Your task to perform on an android device: allow notifications from all sites in the chrome app Image 0: 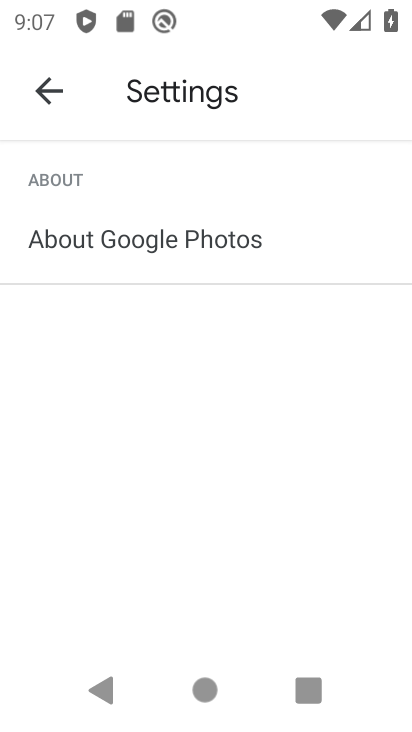
Step 0: press home button
Your task to perform on an android device: allow notifications from all sites in the chrome app Image 1: 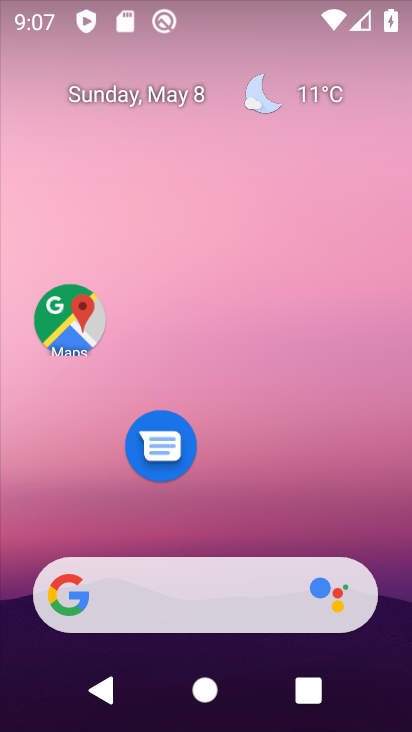
Step 1: drag from (281, 525) to (307, 136)
Your task to perform on an android device: allow notifications from all sites in the chrome app Image 2: 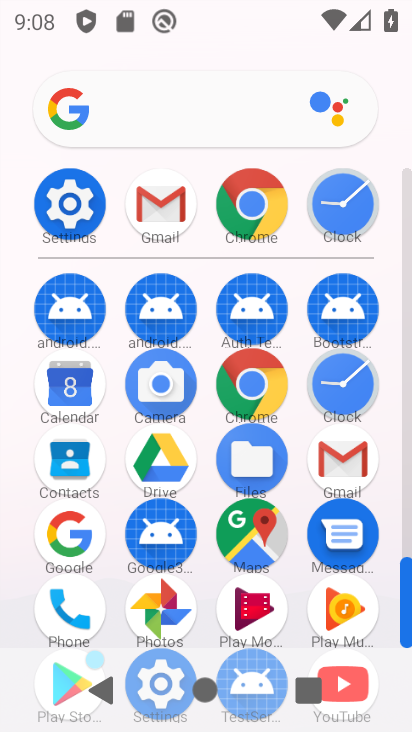
Step 2: click (264, 403)
Your task to perform on an android device: allow notifications from all sites in the chrome app Image 3: 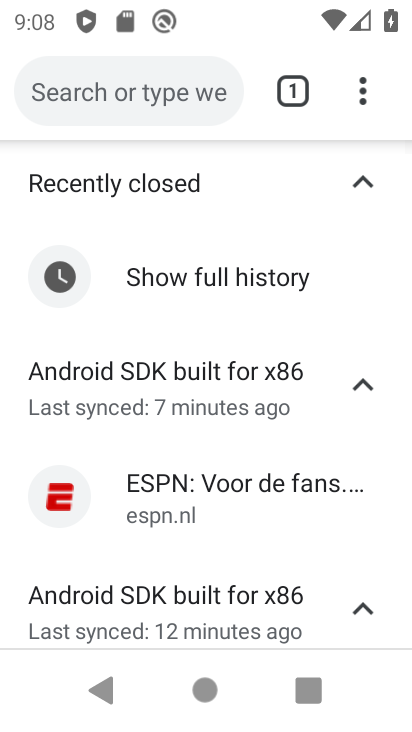
Step 3: drag from (353, 85) to (156, 472)
Your task to perform on an android device: allow notifications from all sites in the chrome app Image 4: 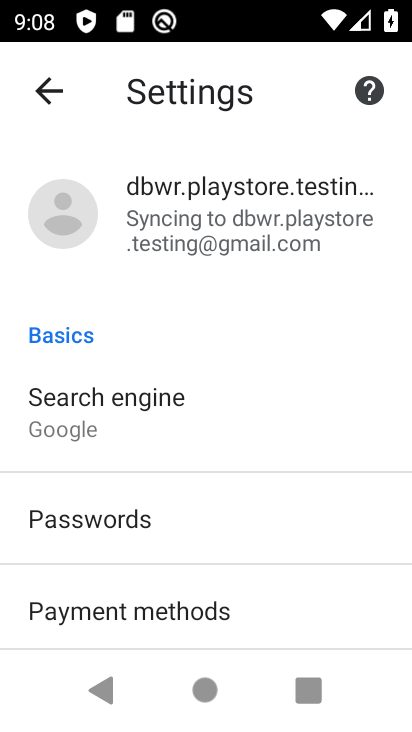
Step 4: drag from (202, 613) to (207, 161)
Your task to perform on an android device: allow notifications from all sites in the chrome app Image 5: 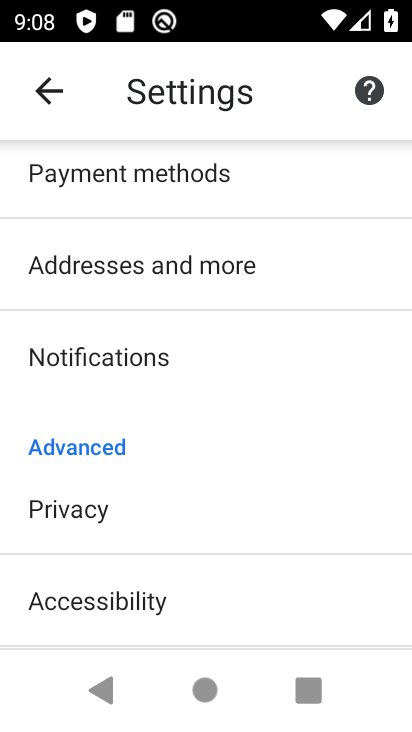
Step 5: drag from (229, 598) to (240, 261)
Your task to perform on an android device: allow notifications from all sites in the chrome app Image 6: 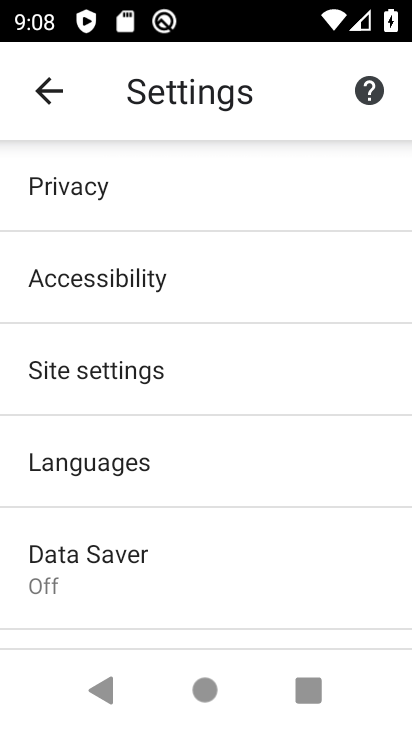
Step 6: drag from (253, 574) to (266, 488)
Your task to perform on an android device: allow notifications from all sites in the chrome app Image 7: 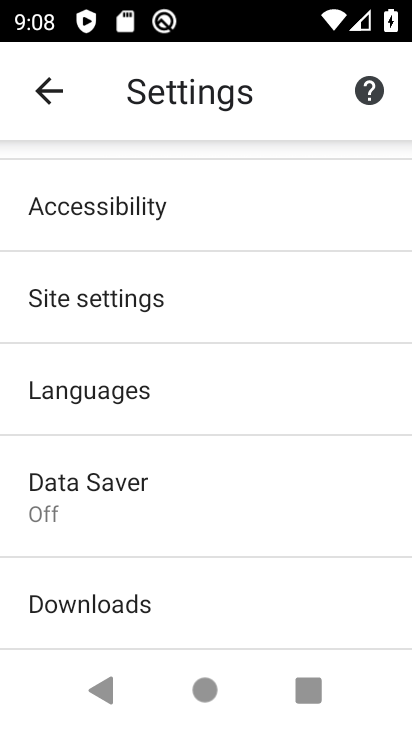
Step 7: click (258, 302)
Your task to perform on an android device: allow notifications from all sites in the chrome app Image 8: 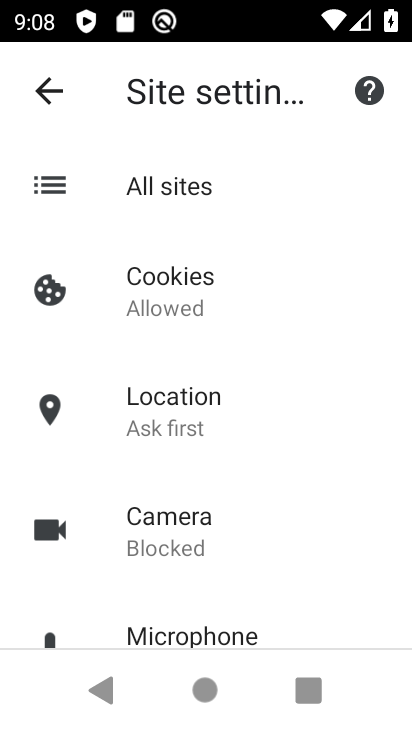
Step 8: drag from (266, 580) to (278, 720)
Your task to perform on an android device: allow notifications from all sites in the chrome app Image 9: 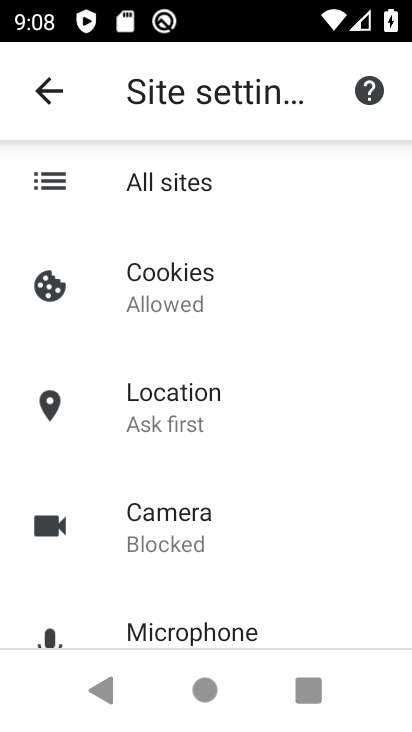
Step 9: click (233, 175)
Your task to perform on an android device: allow notifications from all sites in the chrome app Image 10: 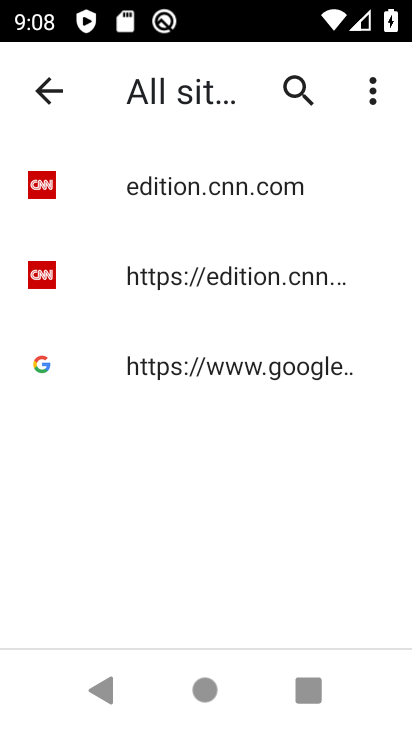
Step 10: click (217, 375)
Your task to perform on an android device: allow notifications from all sites in the chrome app Image 11: 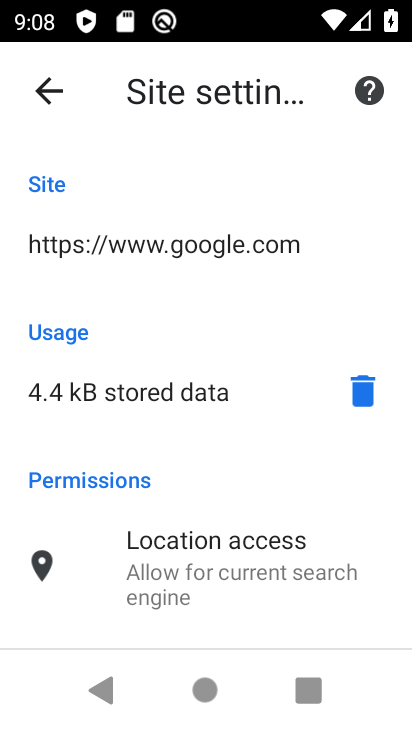
Step 11: drag from (237, 585) to (227, 261)
Your task to perform on an android device: allow notifications from all sites in the chrome app Image 12: 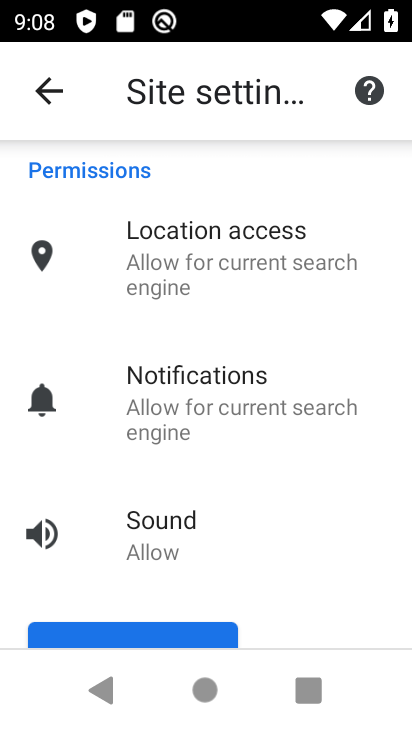
Step 12: click (249, 406)
Your task to perform on an android device: allow notifications from all sites in the chrome app Image 13: 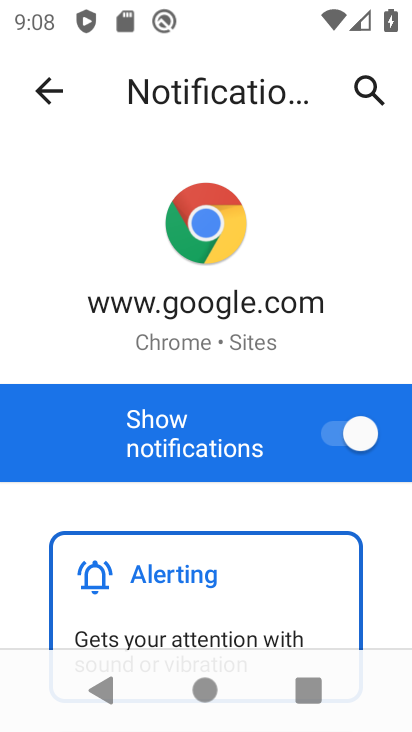
Step 13: drag from (249, 602) to (239, 310)
Your task to perform on an android device: allow notifications from all sites in the chrome app Image 14: 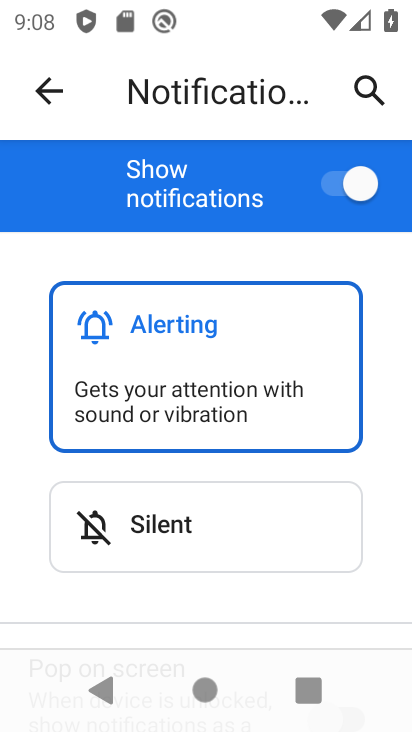
Step 14: drag from (272, 601) to (263, 528)
Your task to perform on an android device: allow notifications from all sites in the chrome app Image 15: 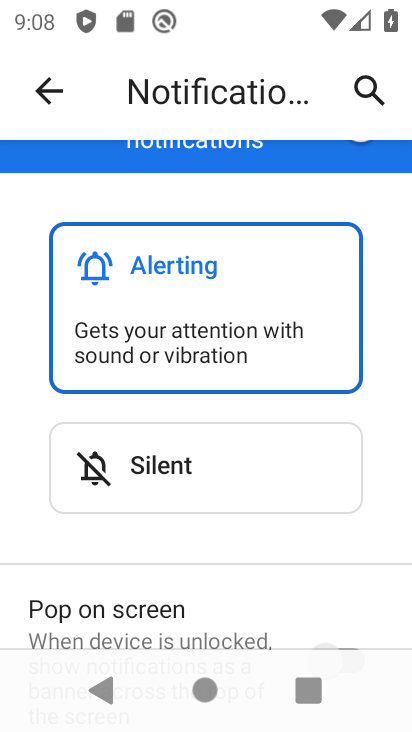
Step 15: click (32, 92)
Your task to perform on an android device: allow notifications from all sites in the chrome app Image 16: 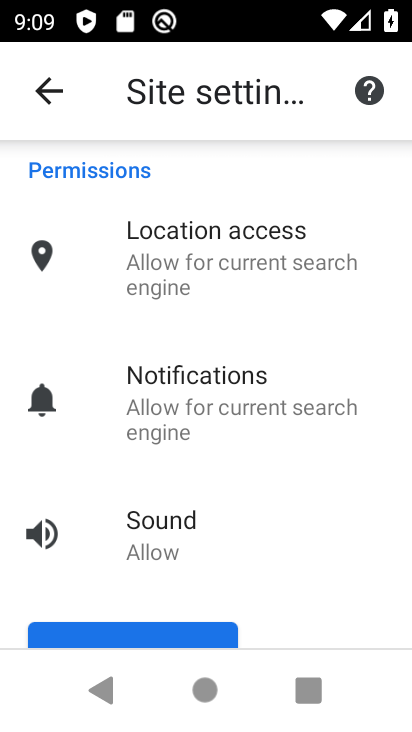
Step 16: click (174, 425)
Your task to perform on an android device: allow notifications from all sites in the chrome app Image 17: 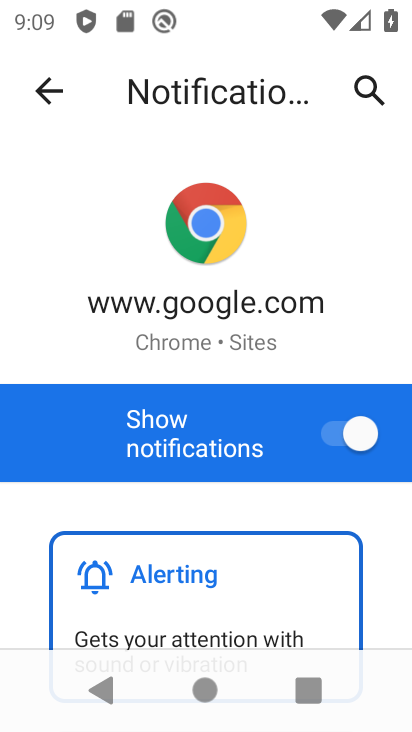
Step 17: click (45, 88)
Your task to perform on an android device: allow notifications from all sites in the chrome app Image 18: 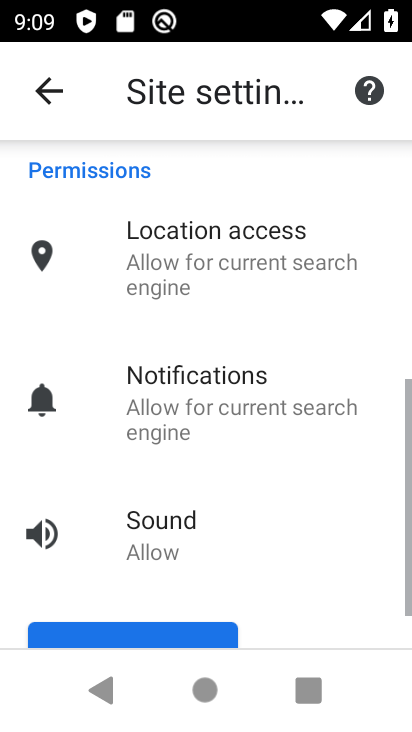
Step 18: click (45, 88)
Your task to perform on an android device: allow notifications from all sites in the chrome app Image 19: 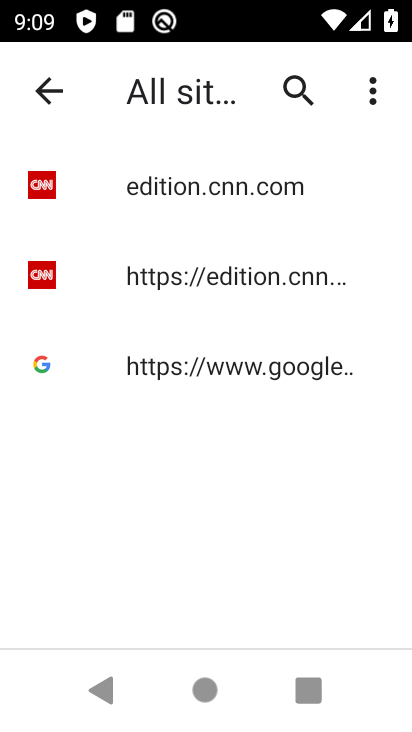
Step 19: click (213, 175)
Your task to perform on an android device: allow notifications from all sites in the chrome app Image 20: 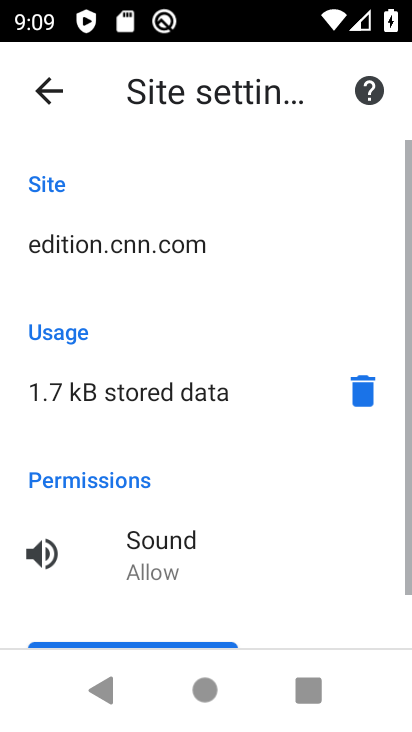
Step 20: drag from (243, 559) to (220, 192)
Your task to perform on an android device: allow notifications from all sites in the chrome app Image 21: 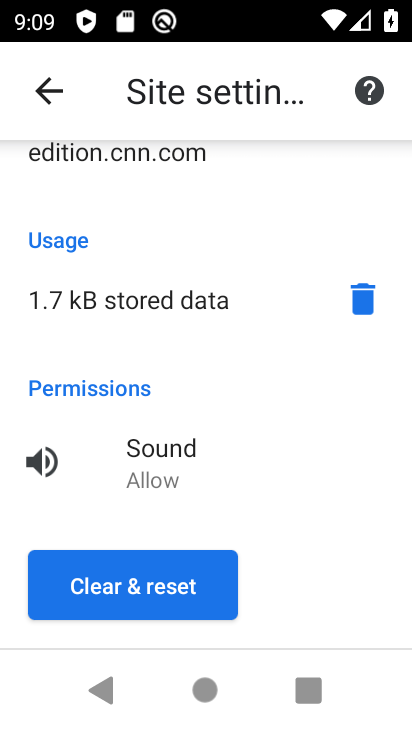
Step 21: drag from (183, 361) to (221, 710)
Your task to perform on an android device: allow notifications from all sites in the chrome app Image 22: 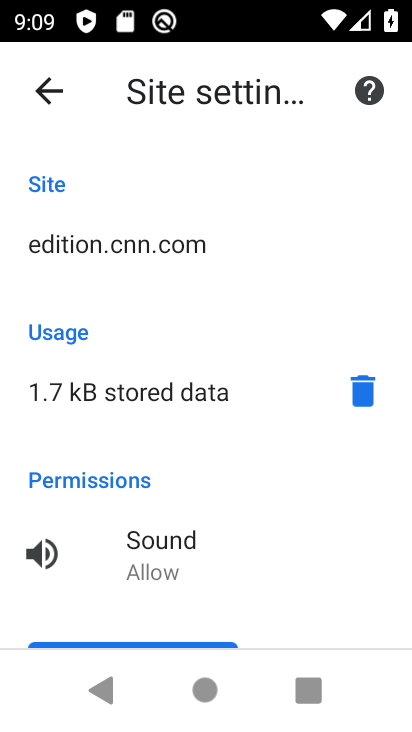
Step 22: click (62, 84)
Your task to perform on an android device: allow notifications from all sites in the chrome app Image 23: 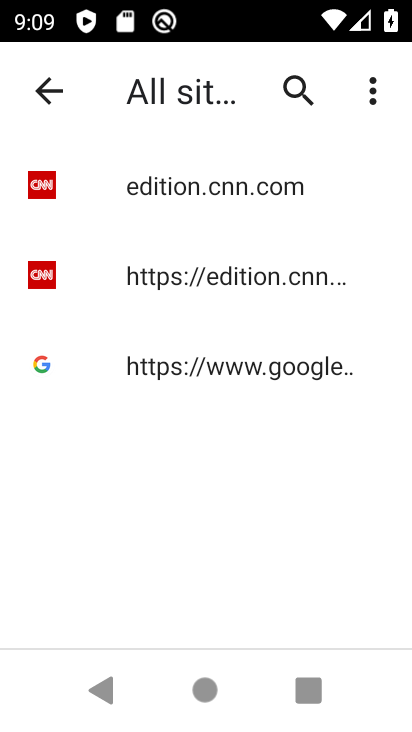
Step 23: click (62, 84)
Your task to perform on an android device: allow notifications from all sites in the chrome app Image 24: 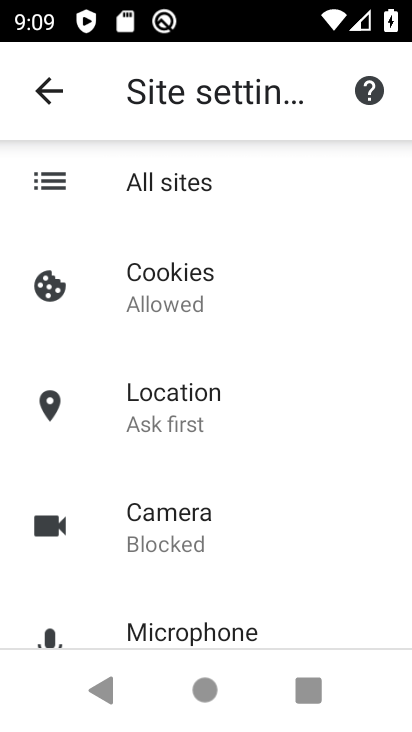
Step 24: task complete